Your task to perform on an android device: toggle notification dots Image 0: 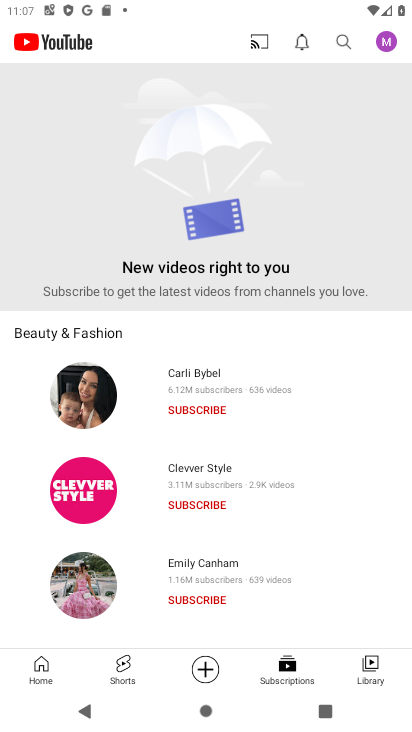
Step 0: task complete